Your task to perform on an android device: Go to Reddit.com Image 0: 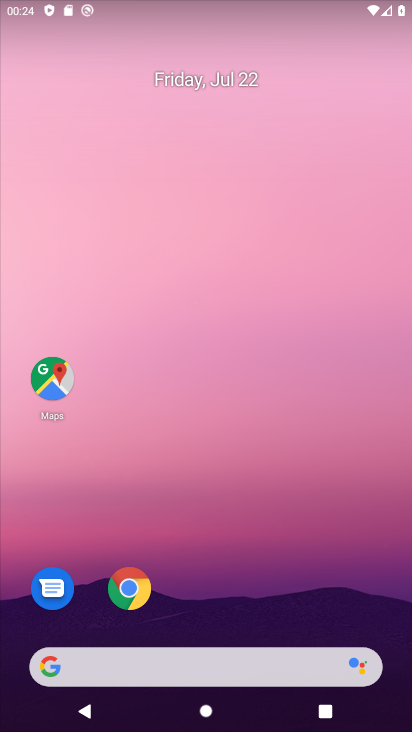
Step 0: click (139, 584)
Your task to perform on an android device: Go to Reddit.com Image 1: 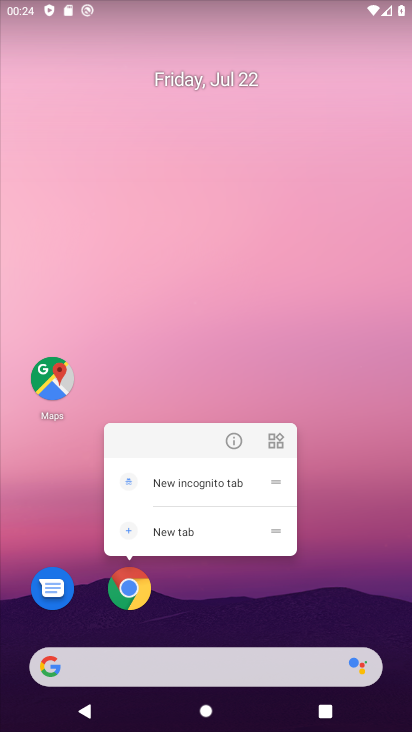
Step 1: click (123, 587)
Your task to perform on an android device: Go to Reddit.com Image 2: 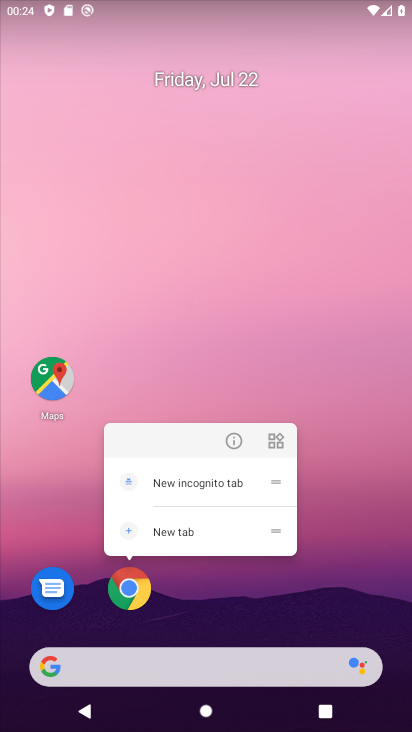
Step 2: click (124, 588)
Your task to perform on an android device: Go to Reddit.com Image 3: 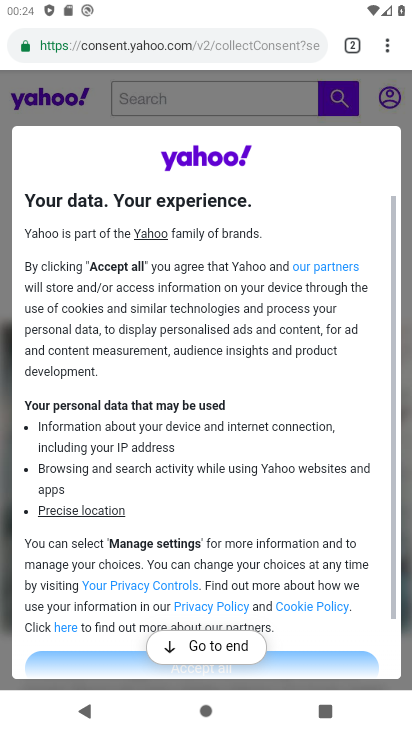
Step 3: click (352, 43)
Your task to perform on an android device: Go to Reddit.com Image 4: 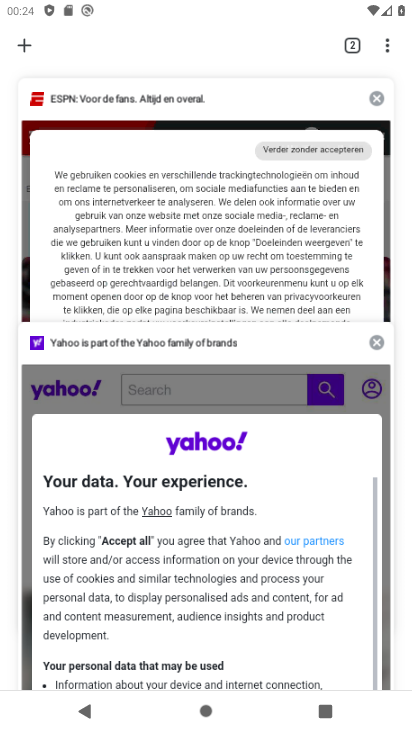
Step 4: click (24, 47)
Your task to perform on an android device: Go to Reddit.com Image 5: 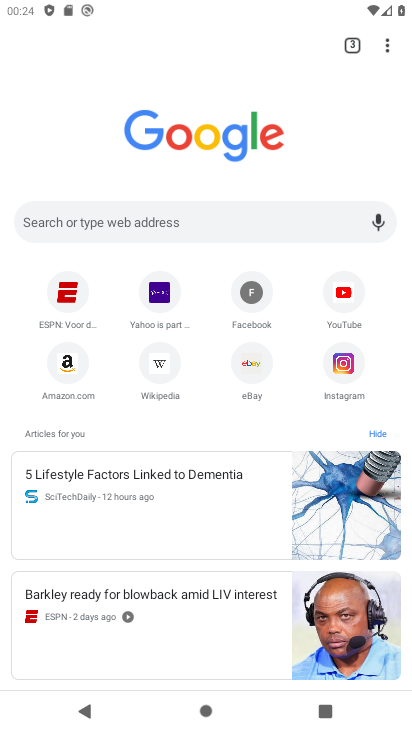
Step 5: click (146, 212)
Your task to perform on an android device: Go to Reddit.com Image 6: 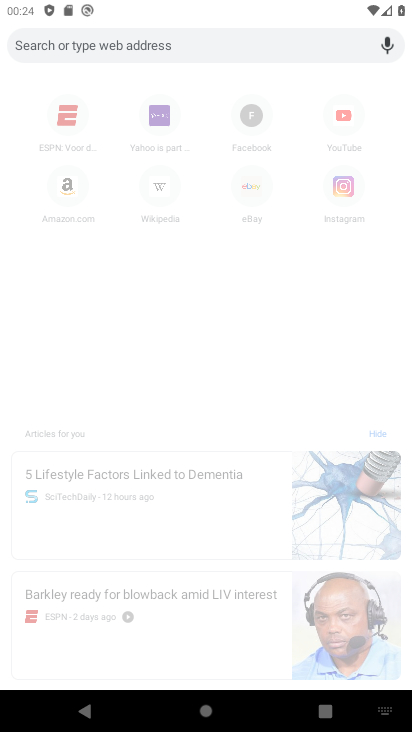
Step 6: type "reddit.com"
Your task to perform on an android device: Go to Reddit.com Image 7: 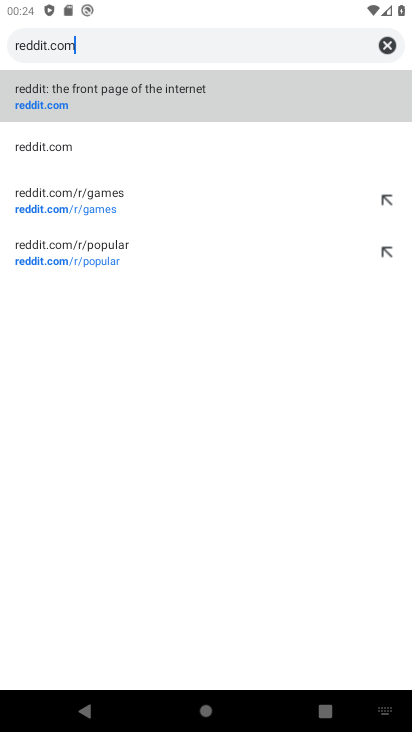
Step 7: click (144, 101)
Your task to perform on an android device: Go to Reddit.com Image 8: 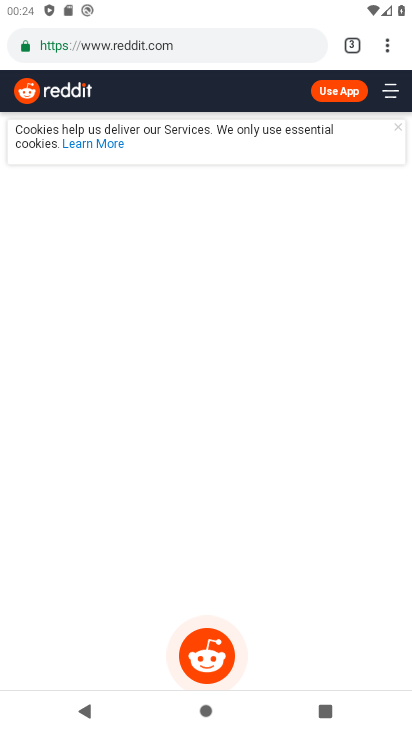
Step 8: task complete